Your task to perform on an android device: open app "LiveIn - Share Your Moment" Image 0: 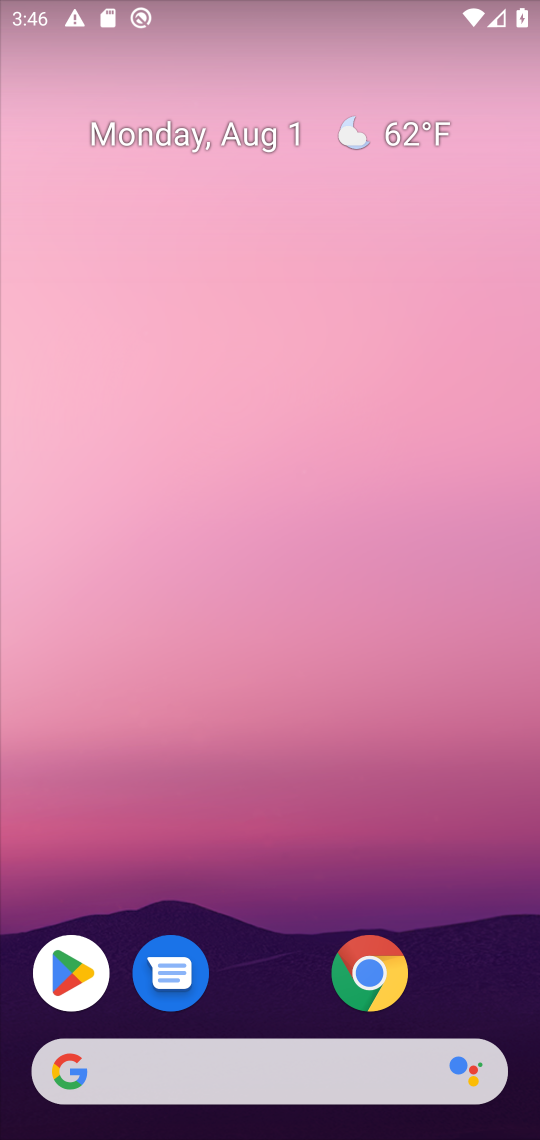
Step 0: drag from (394, 1022) to (211, 222)
Your task to perform on an android device: open app "LiveIn - Share Your Moment" Image 1: 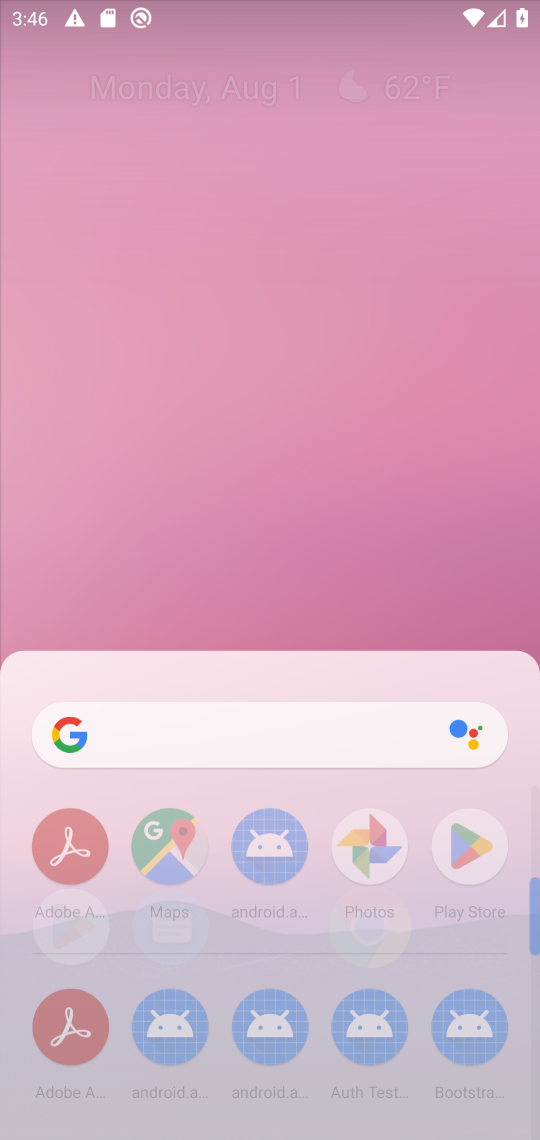
Step 1: click (147, 285)
Your task to perform on an android device: open app "LiveIn - Share Your Moment" Image 2: 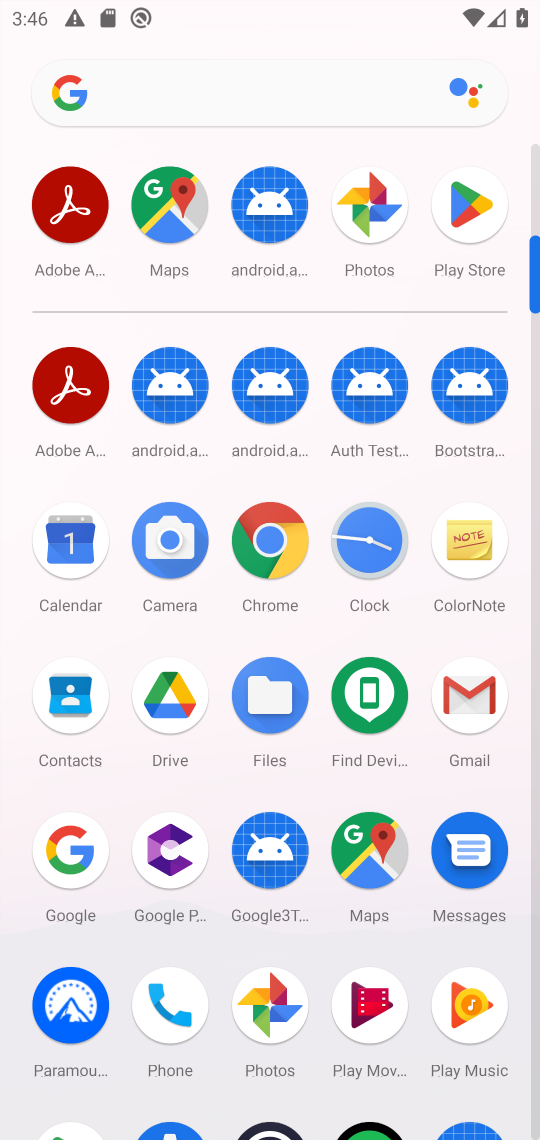
Step 2: click (470, 188)
Your task to perform on an android device: open app "LiveIn - Share Your Moment" Image 3: 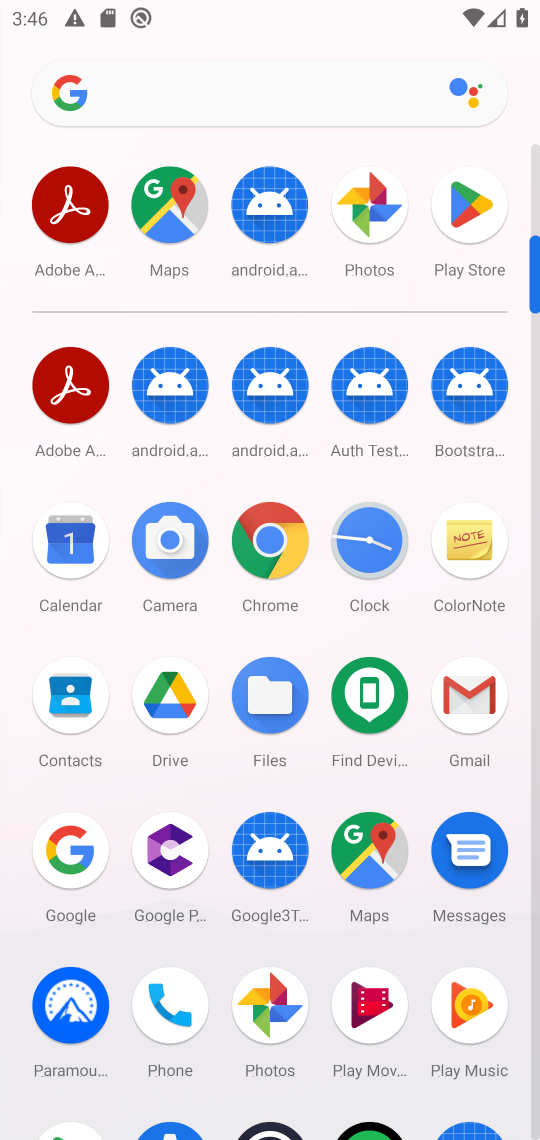
Step 3: click (472, 189)
Your task to perform on an android device: open app "LiveIn - Share Your Moment" Image 4: 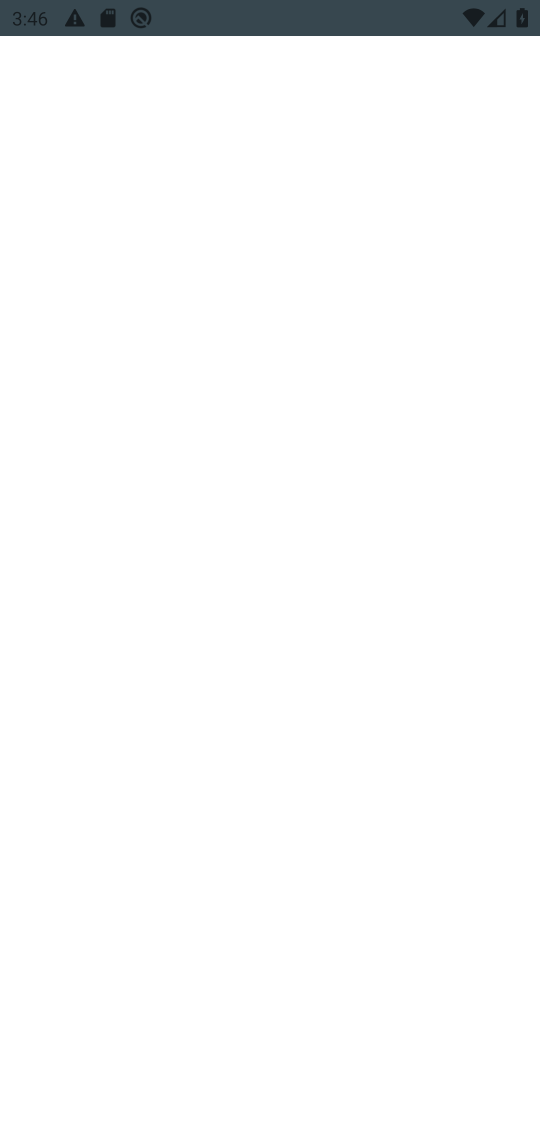
Step 4: click (472, 189)
Your task to perform on an android device: open app "LiveIn - Share Your Moment" Image 5: 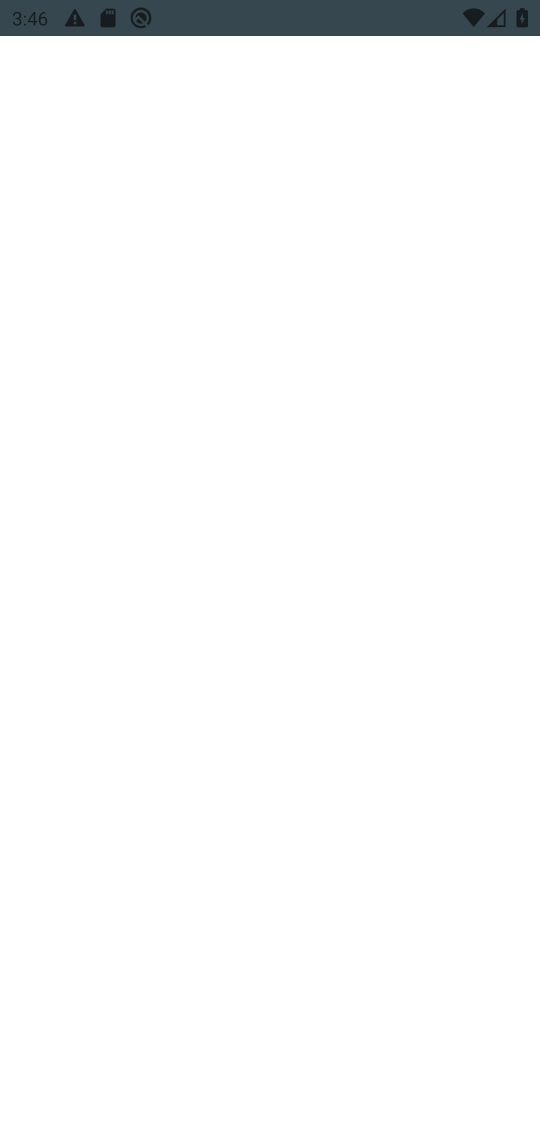
Step 5: click (472, 189)
Your task to perform on an android device: open app "LiveIn - Share Your Moment" Image 6: 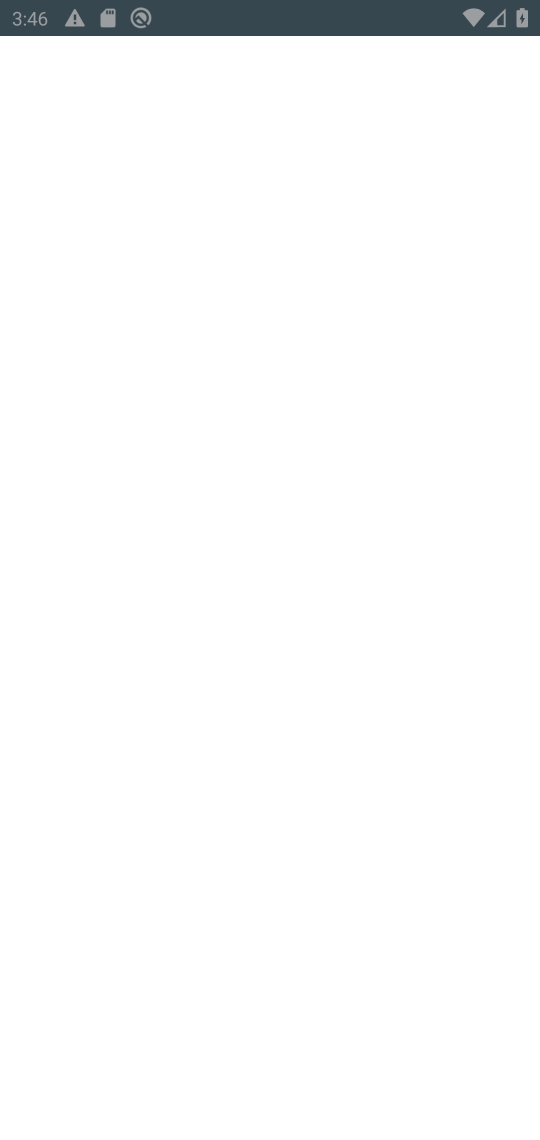
Step 6: click (473, 189)
Your task to perform on an android device: open app "LiveIn - Share Your Moment" Image 7: 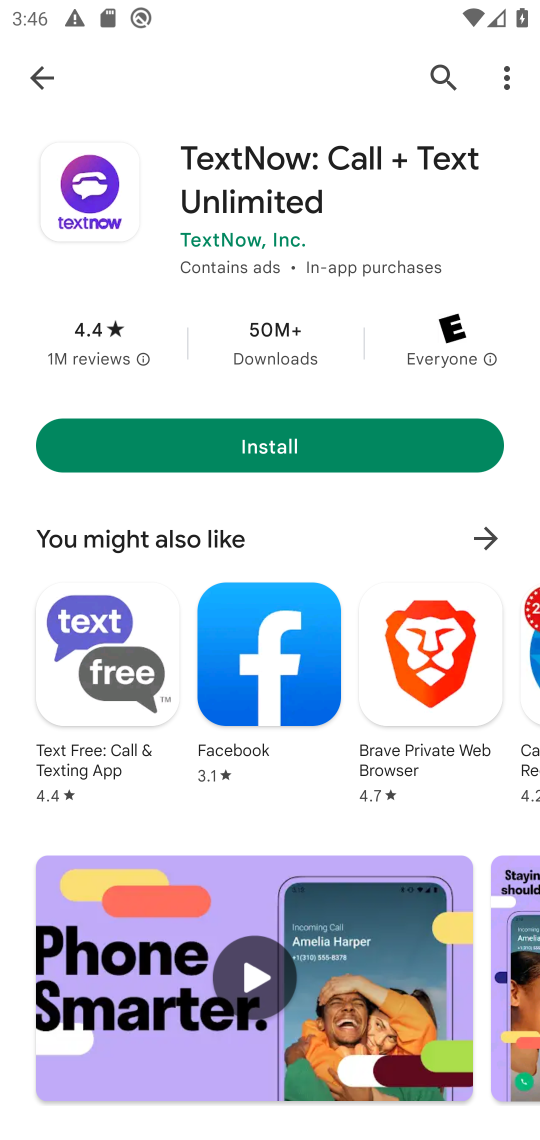
Step 7: click (30, 68)
Your task to perform on an android device: open app "LiveIn - Share Your Moment" Image 8: 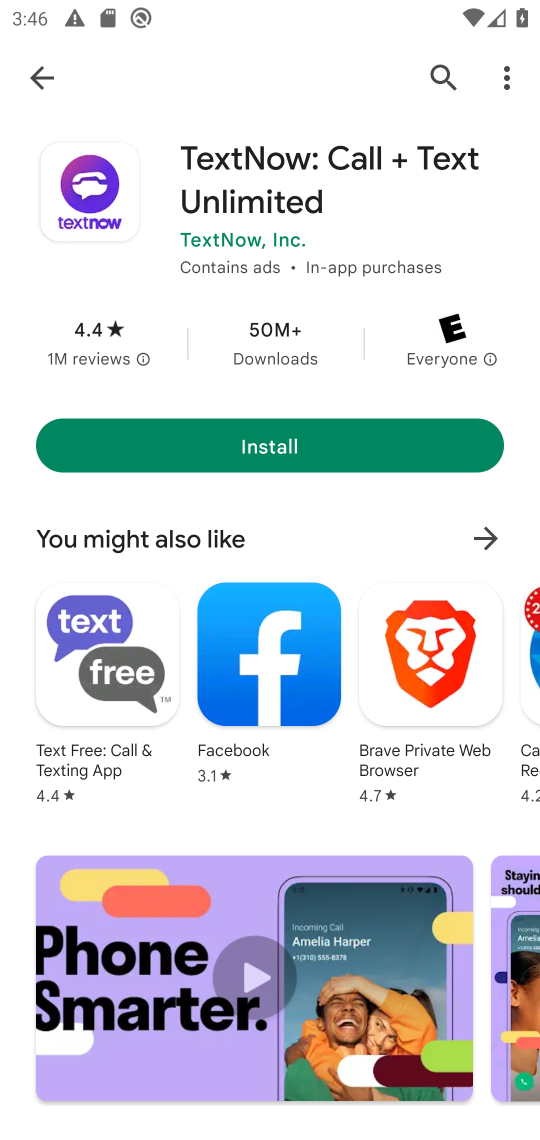
Step 8: click (24, 109)
Your task to perform on an android device: open app "LiveIn - Share Your Moment" Image 9: 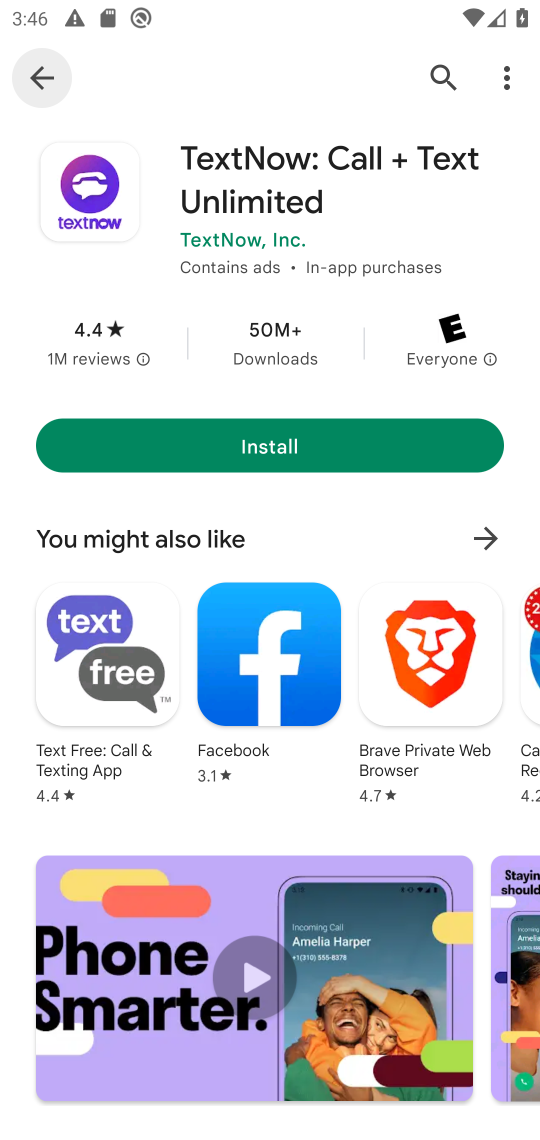
Step 9: click (26, 109)
Your task to perform on an android device: open app "LiveIn - Share Your Moment" Image 10: 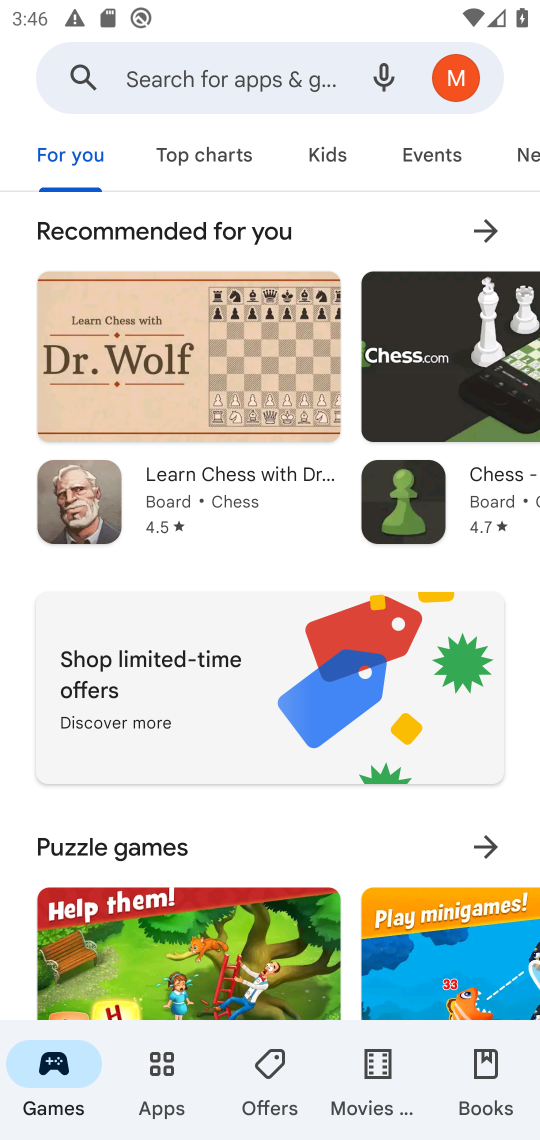
Step 10: click (151, 76)
Your task to perform on an android device: open app "LiveIn - Share Your Moment" Image 11: 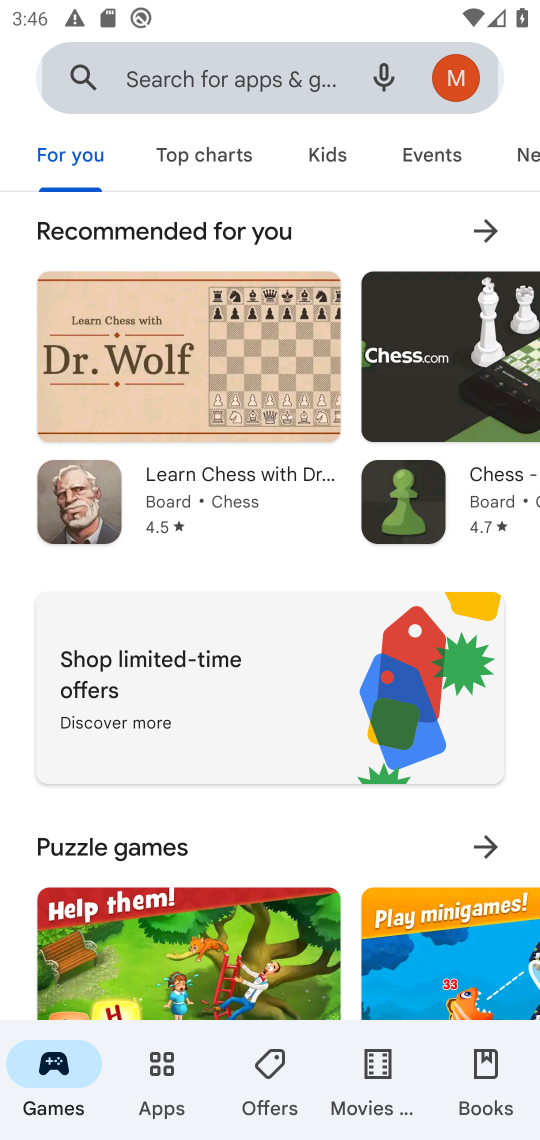
Step 11: click (151, 76)
Your task to perform on an android device: open app "LiveIn - Share Your Moment" Image 12: 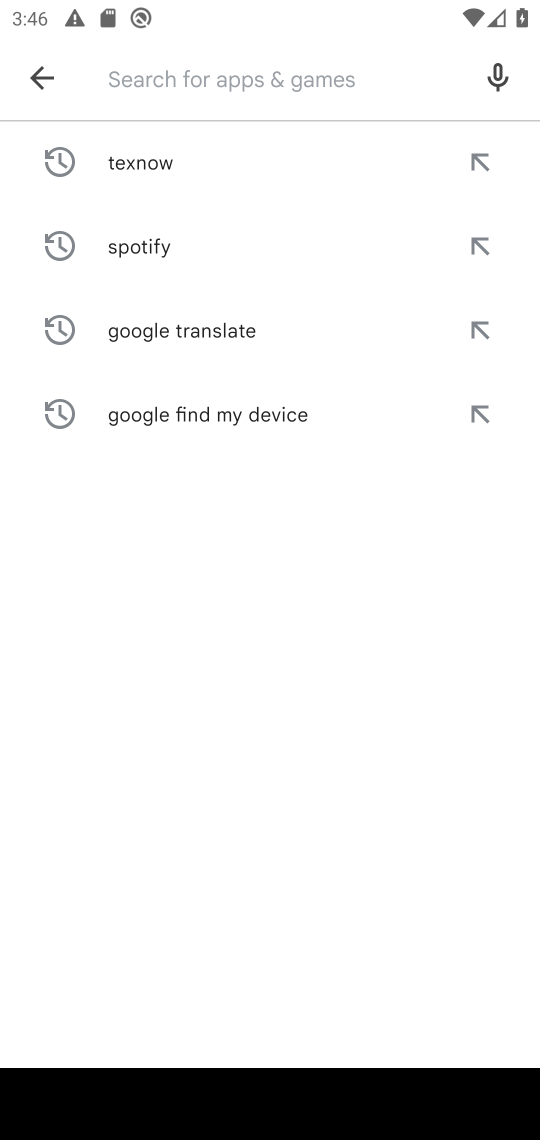
Step 12: type "livein"
Your task to perform on an android device: open app "LiveIn - Share Your Moment" Image 13: 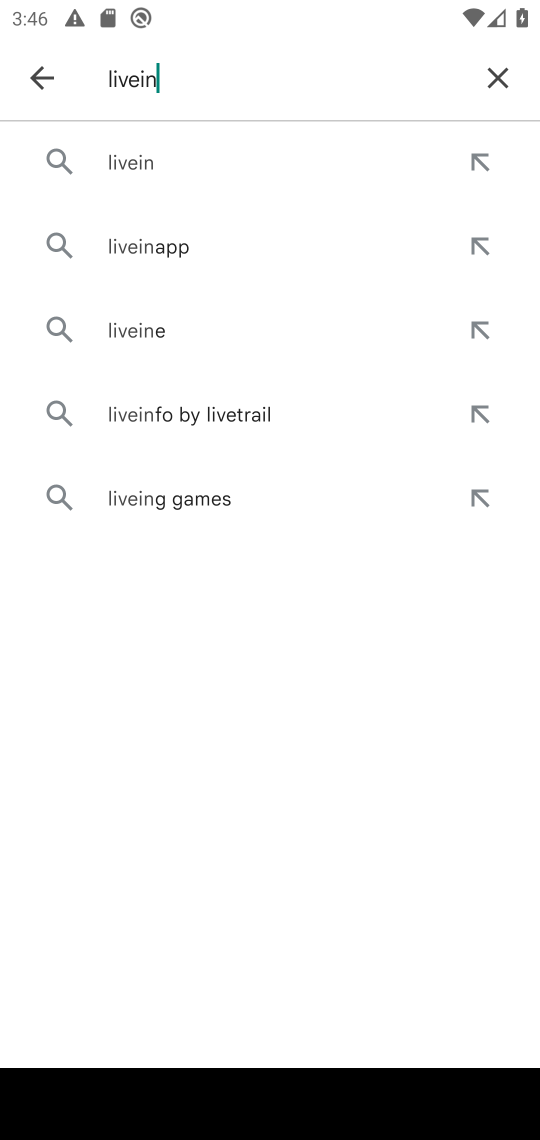
Step 13: click (487, 148)
Your task to perform on an android device: open app "LiveIn - Share Your Moment" Image 14: 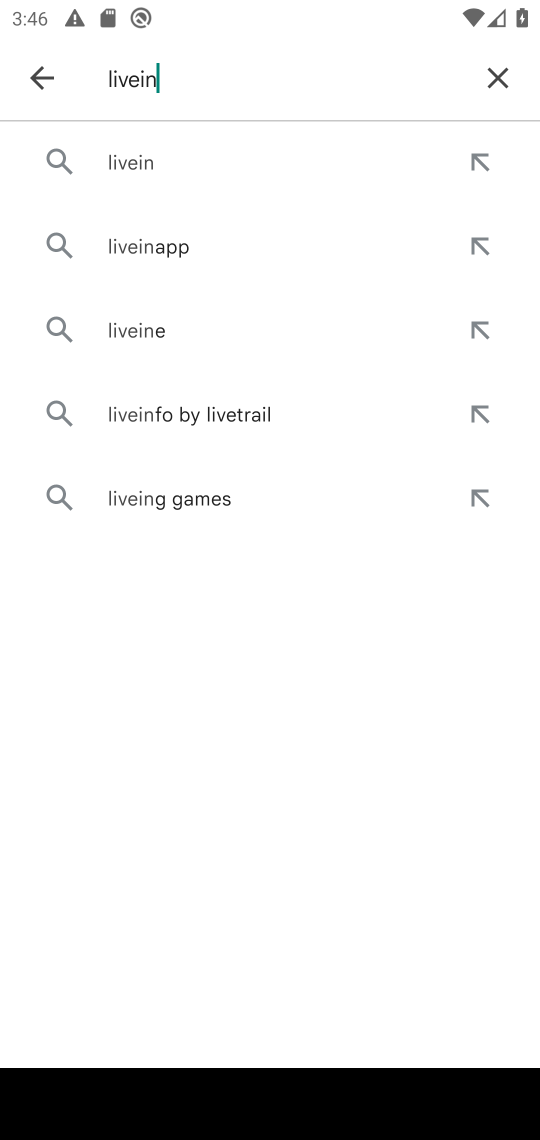
Step 14: click (466, 165)
Your task to perform on an android device: open app "LiveIn - Share Your Moment" Image 15: 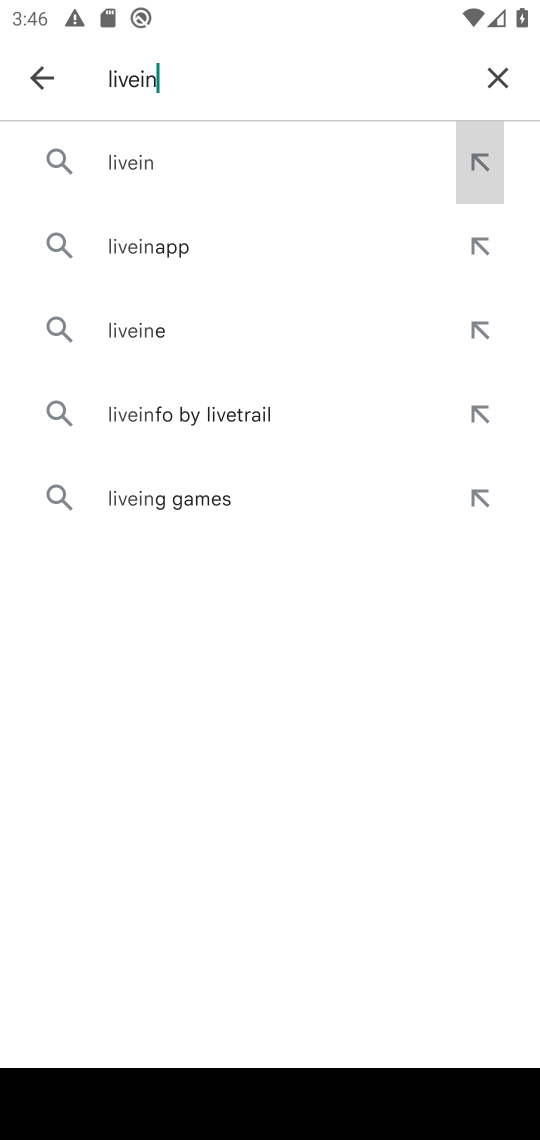
Step 15: click (478, 156)
Your task to perform on an android device: open app "LiveIn - Share Your Moment" Image 16: 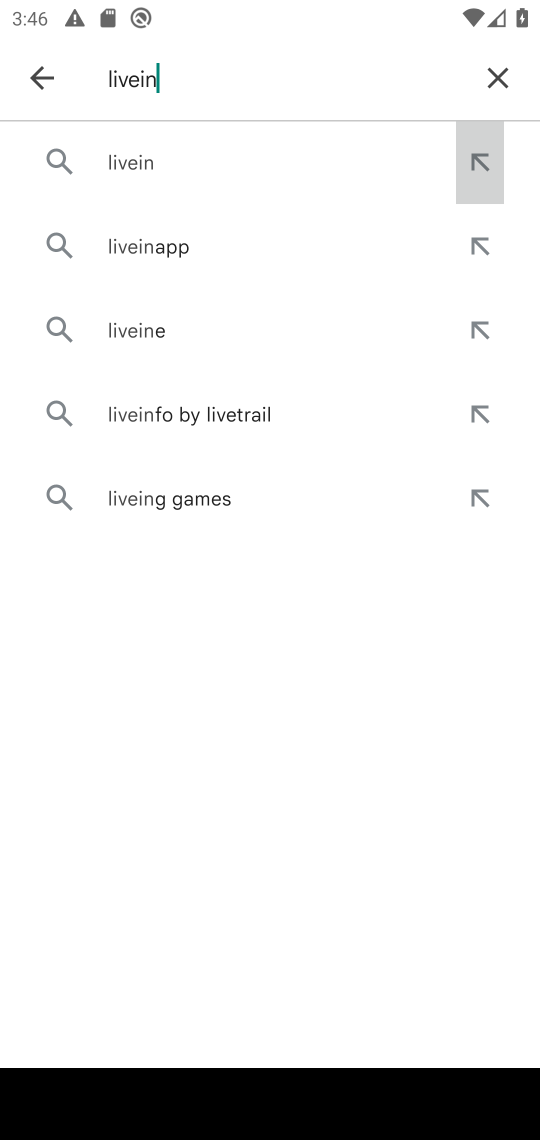
Step 16: click (142, 157)
Your task to perform on an android device: open app "LiveIn - Share Your Moment" Image 17: 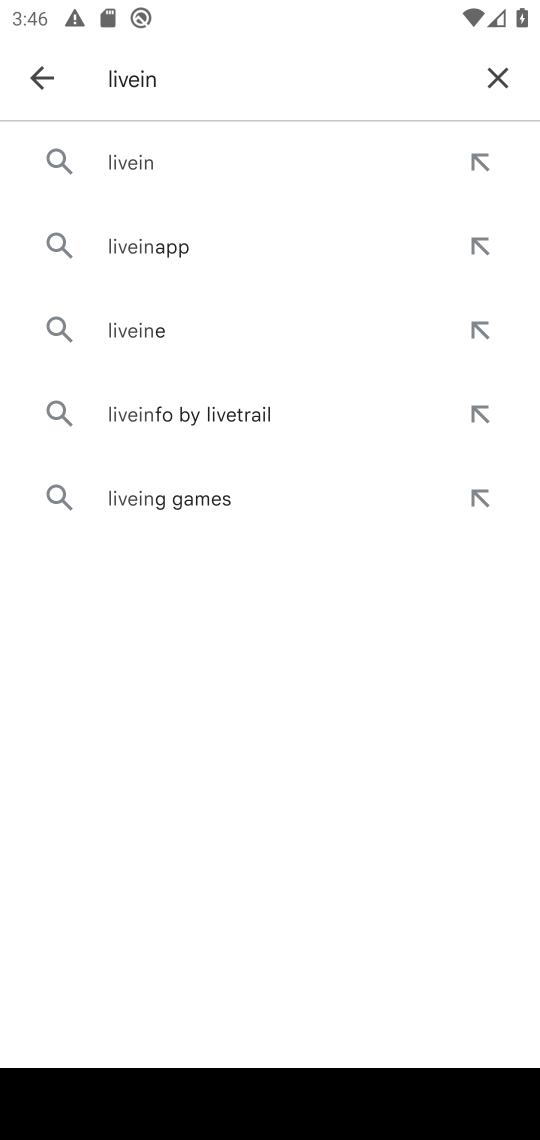
Step 17: click (142, 157)
Your task to perform on an android device: open app "LiveIn - Share Your Moment" Image 18: 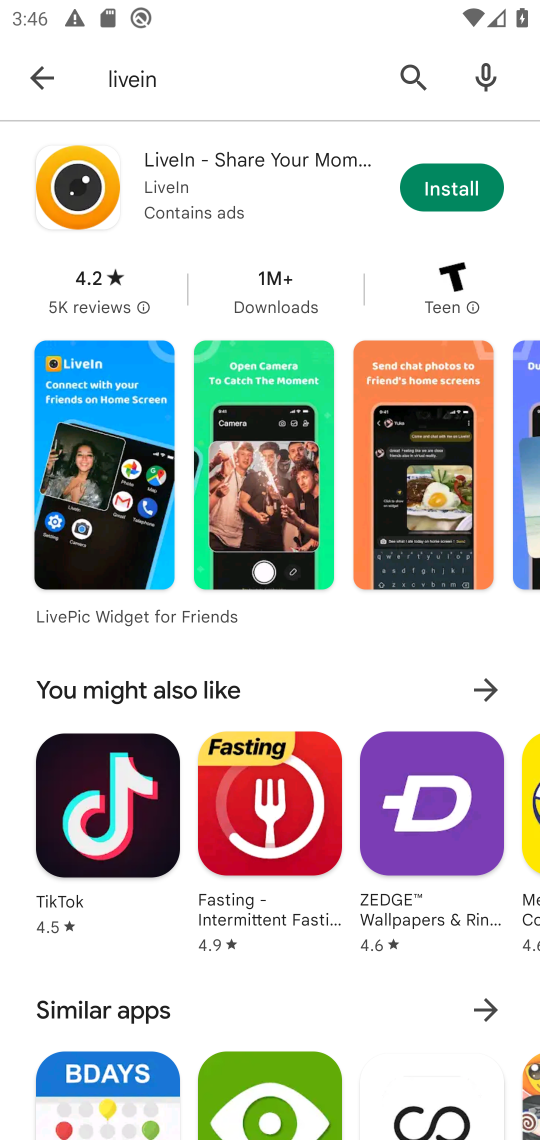
Step 18: click (426, 171)
Your task to perform on an android device: open app "LiveIn - Share Your Moment" Image 19: 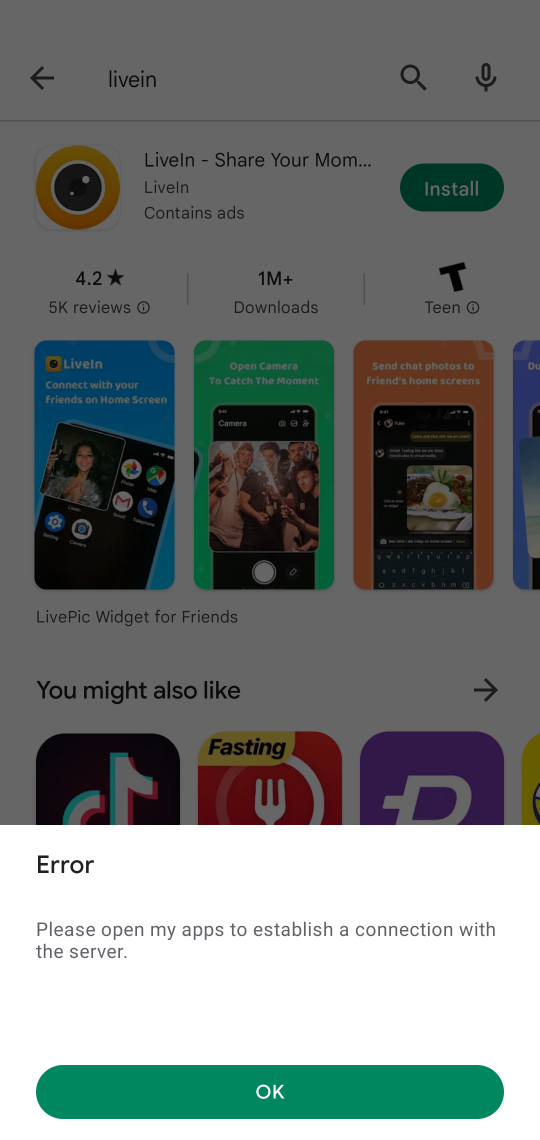
Step 19: click (262, 1107)
Your task to perform on an android device: open app "LiveIn - Share Your Moment" Image 20: 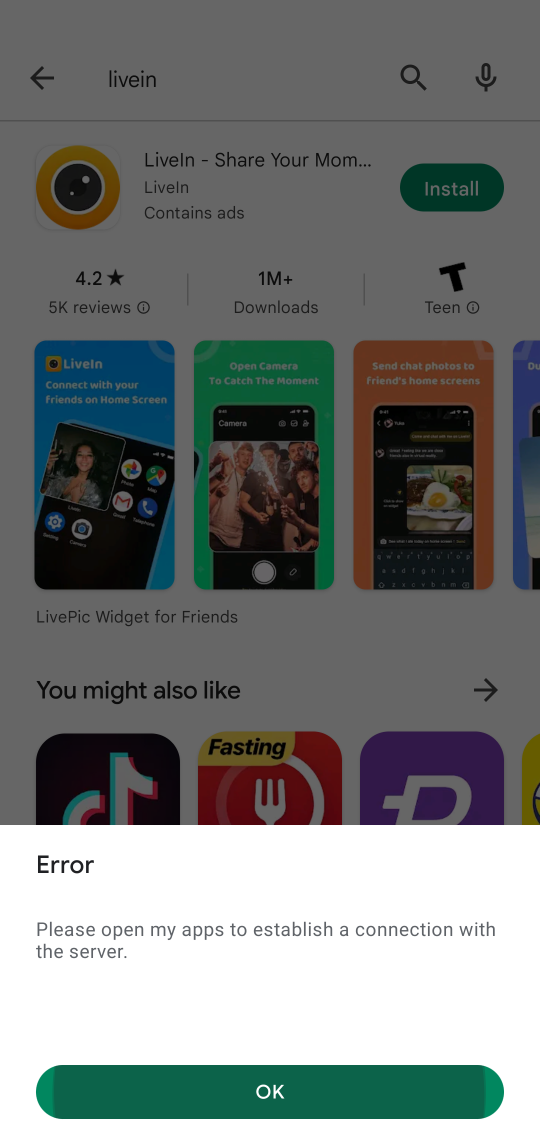
Step 20: click (265, 1072)
Your task to perform on an android device: open app "LiveIn - Share Your Moment" Image 21: 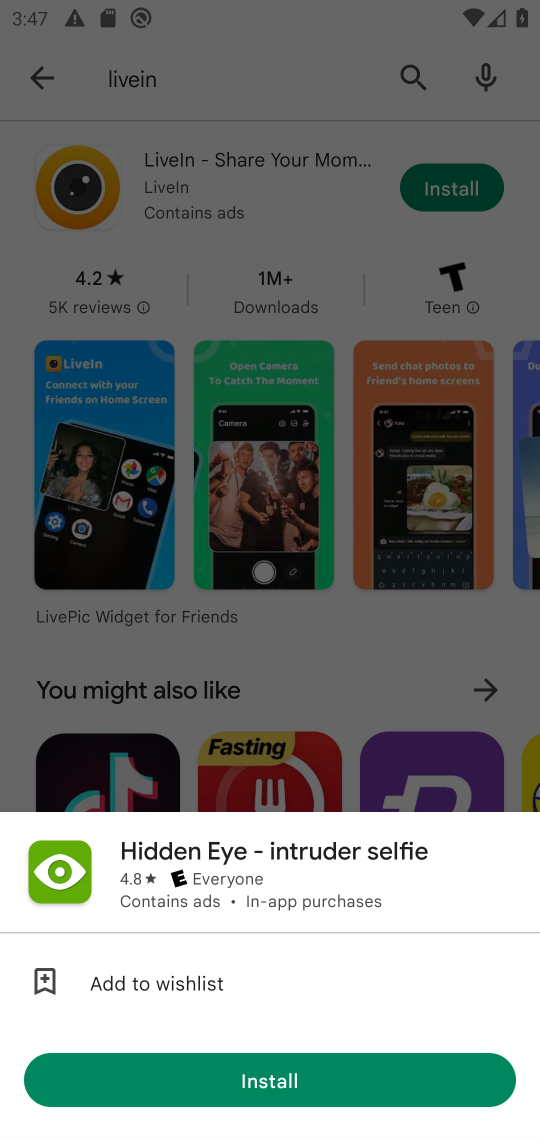
Step 21: click (324, 714)
Your task to perform on an android device: open app "LiveIn - Share Your Moment" Image 22: 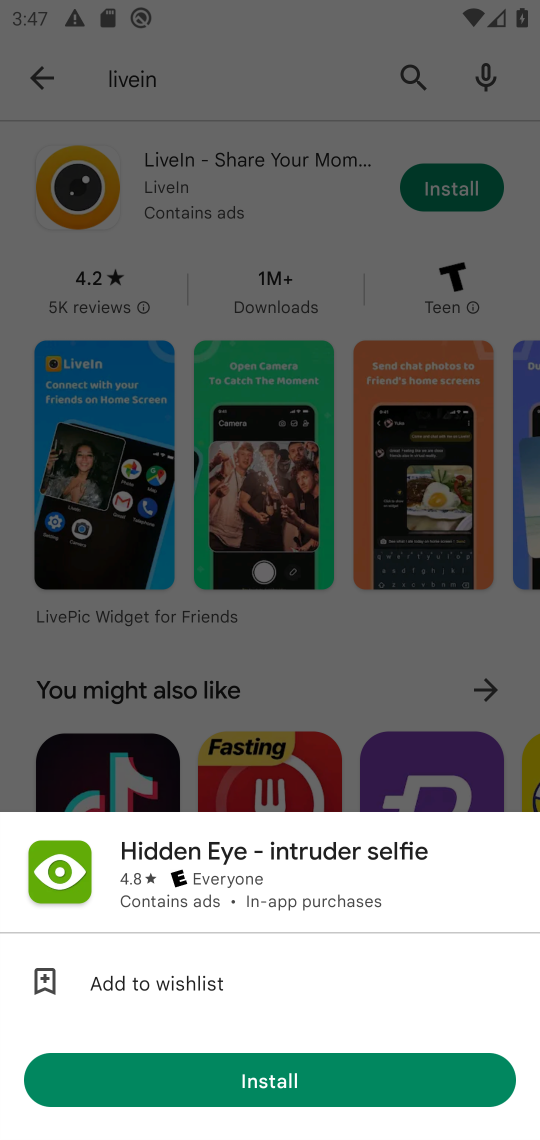
Step 22: click (343, 704)
Your task to perform on an android device: open app "LiveIn - Share Your Moment" Image 23: 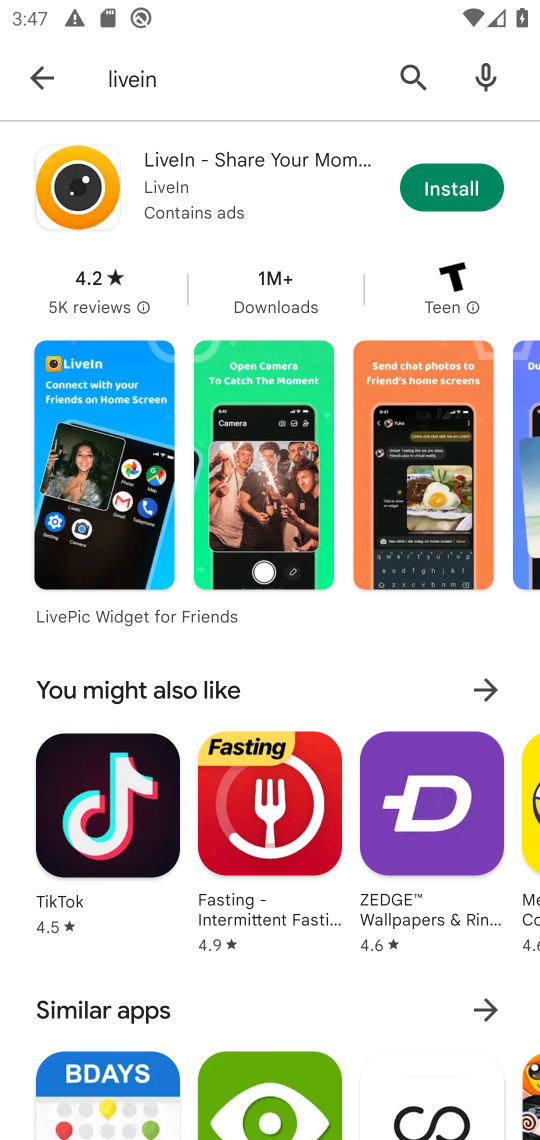
Step 23: click (427, 175)
Your task to perform on an android device: open app "LiveIn - Share Your Moment" Image 24: 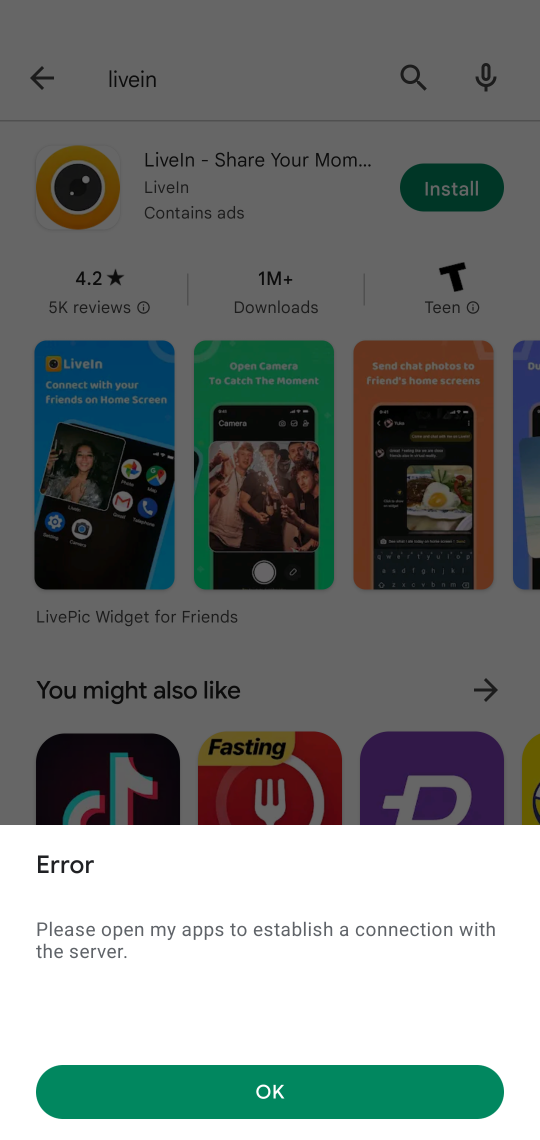
Step 24: click (273, 1093)
Your task to perform on an android device: open app "LiveIn - Share Your Moment" Image 25: 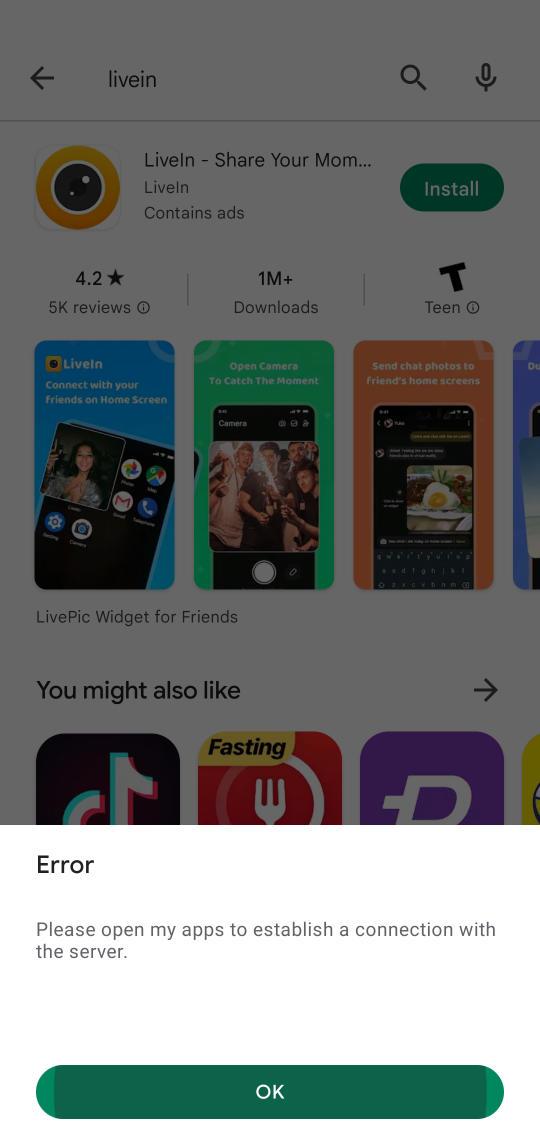
Step 25: click (273, 1093)
Your task to perform on an android device: open app "LiveIn - Share Your Moment" Image 26: 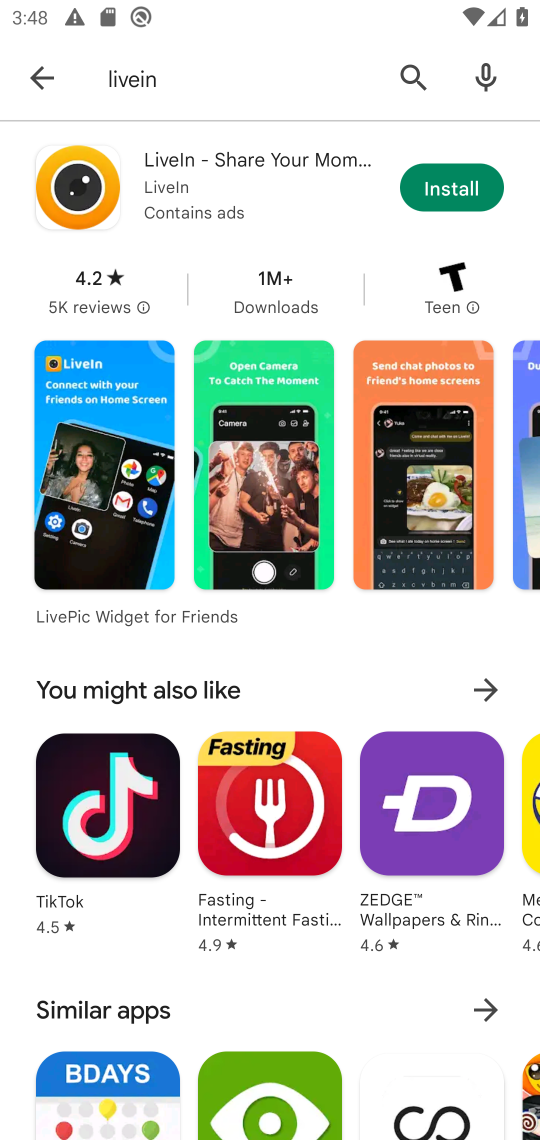
Step 26: click (282, 1092)
Your task to perform on an android device: open app "LiveIn - Share Your Moment" Image 27: 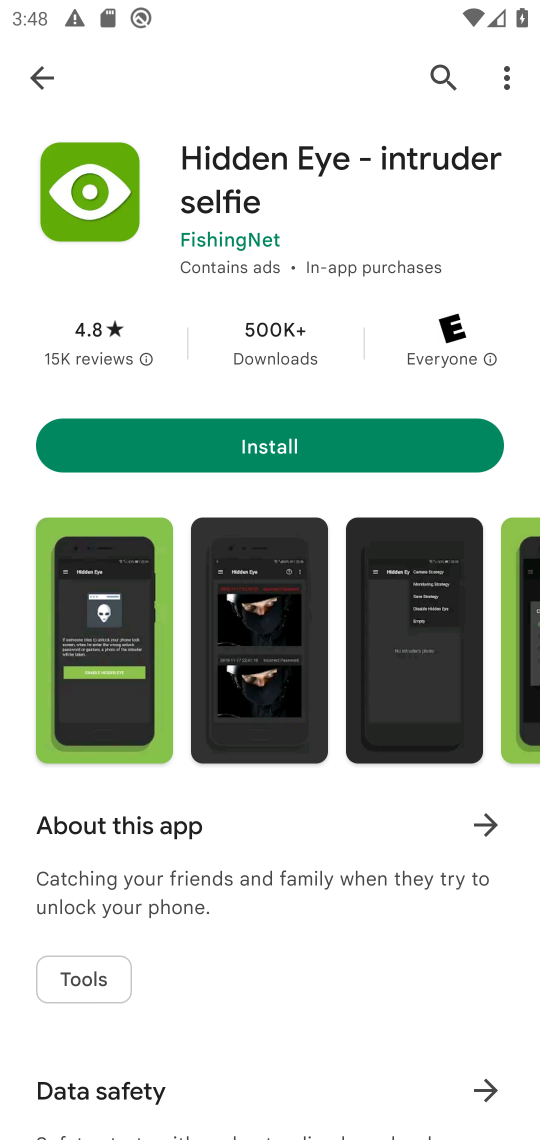
Step 27: click (39, 57)
Your task to perform on an android device: open app "LiveIn - Share Your Moment" Image 28: 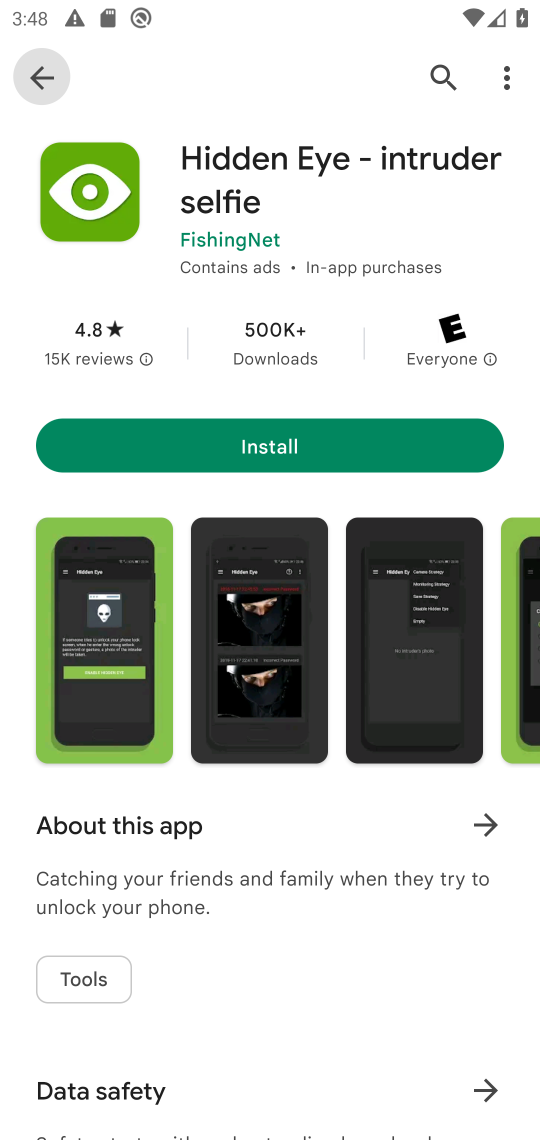
Step 28: click (39, 57)
Your task to perform on an android device: open app "LiveIn - Share Your Moment" Image 29: 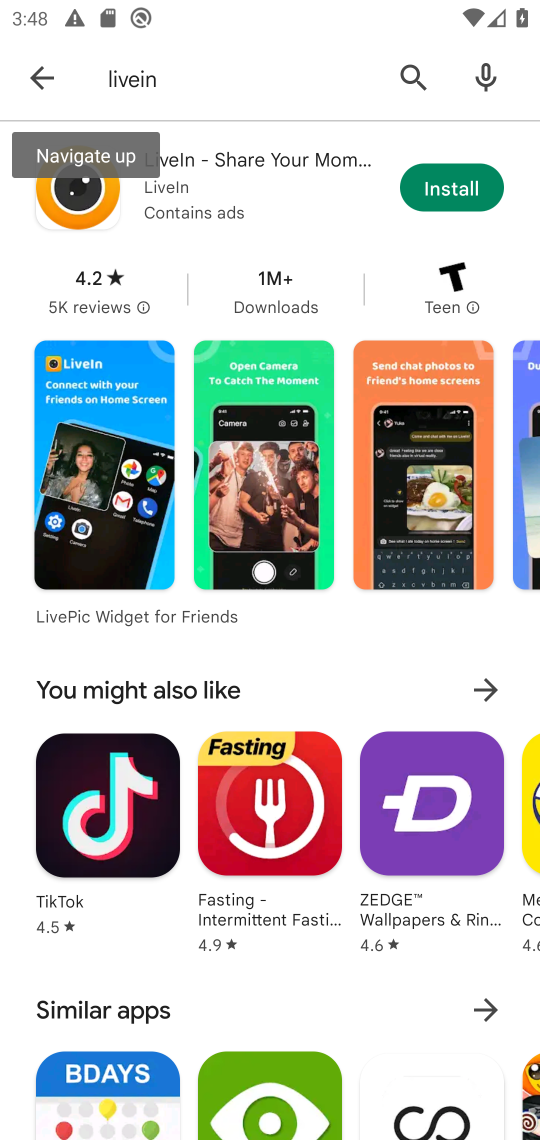
Step 29: click (460, 192)
Your task to perform on an android device: open app "LiveIn - Share Your Moment" Image 30: 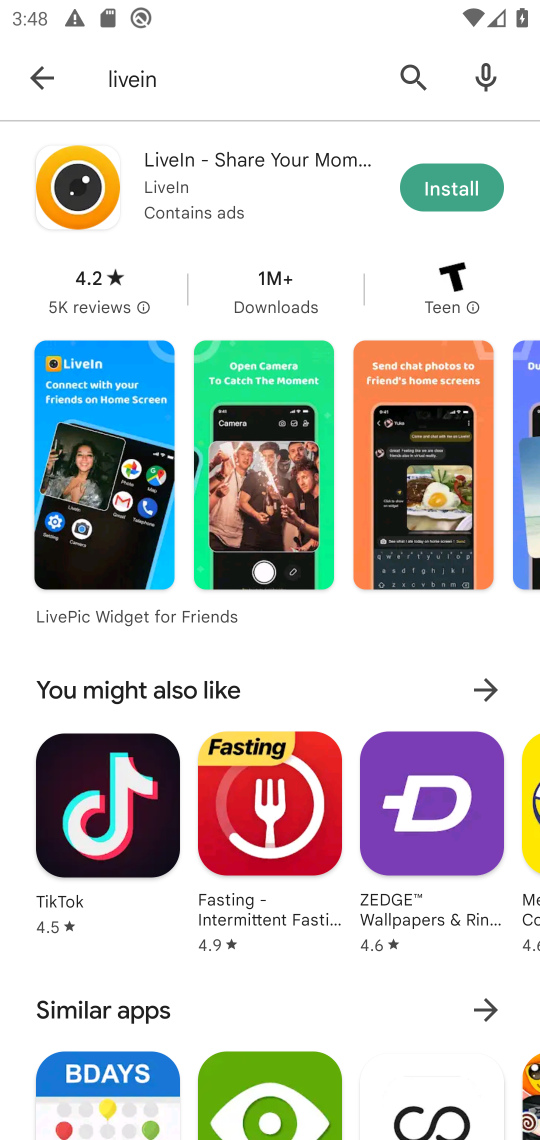
Step 30: click (463, 193)
Your task to perform on an android device: open app "LiveIn - Share Your Moment" Image 31: 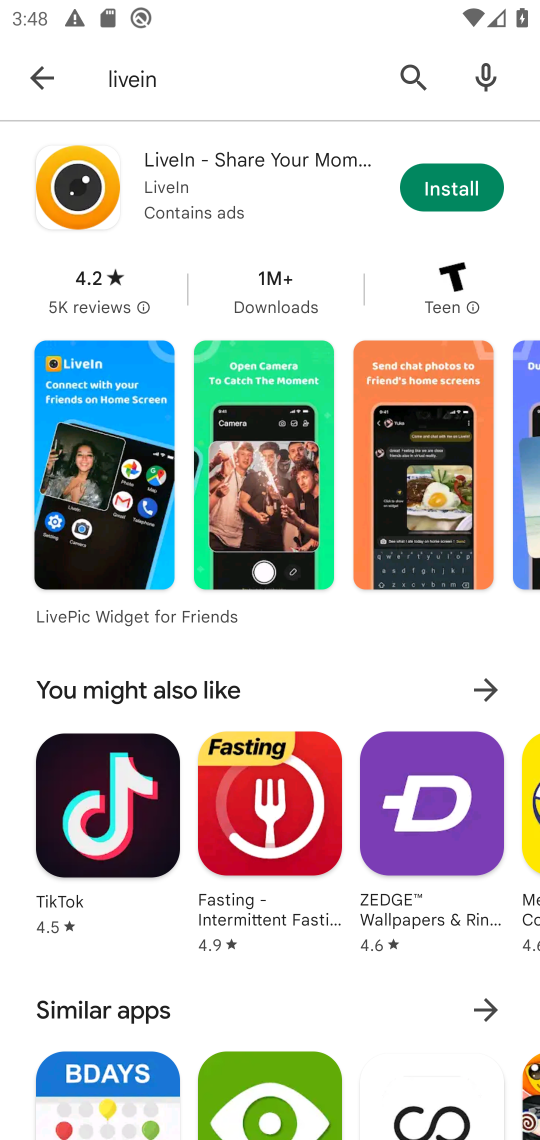
Step 31: click (456, 203)
Your task to perform on an android device: open app "LiveIn - Share Your Moment" Image 32: 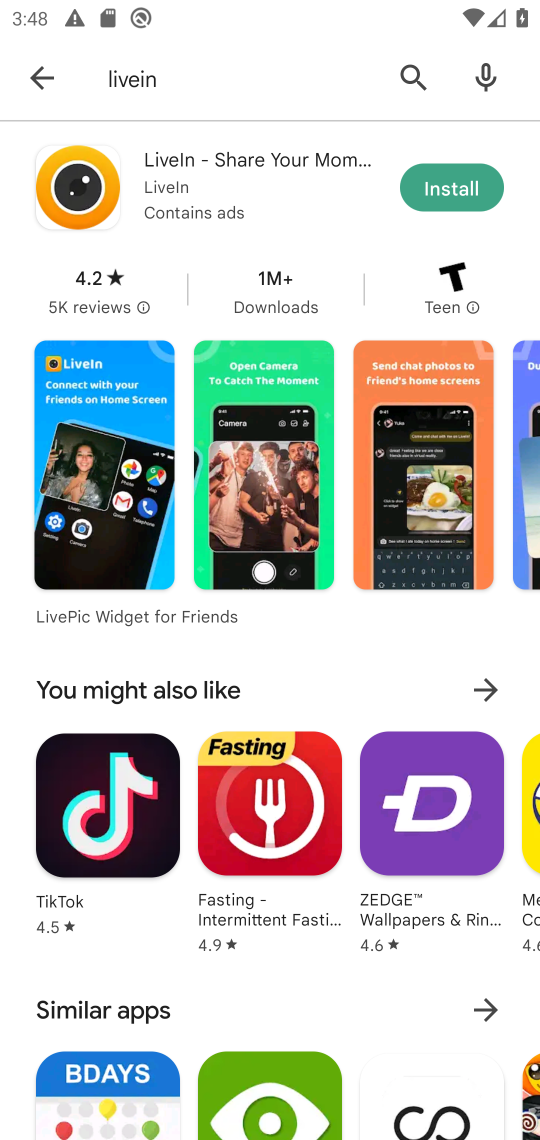
Step 32: click (452, 198)
Your task to perform on an android device: open app "LiveIn - Share Your Moment" Image 33: 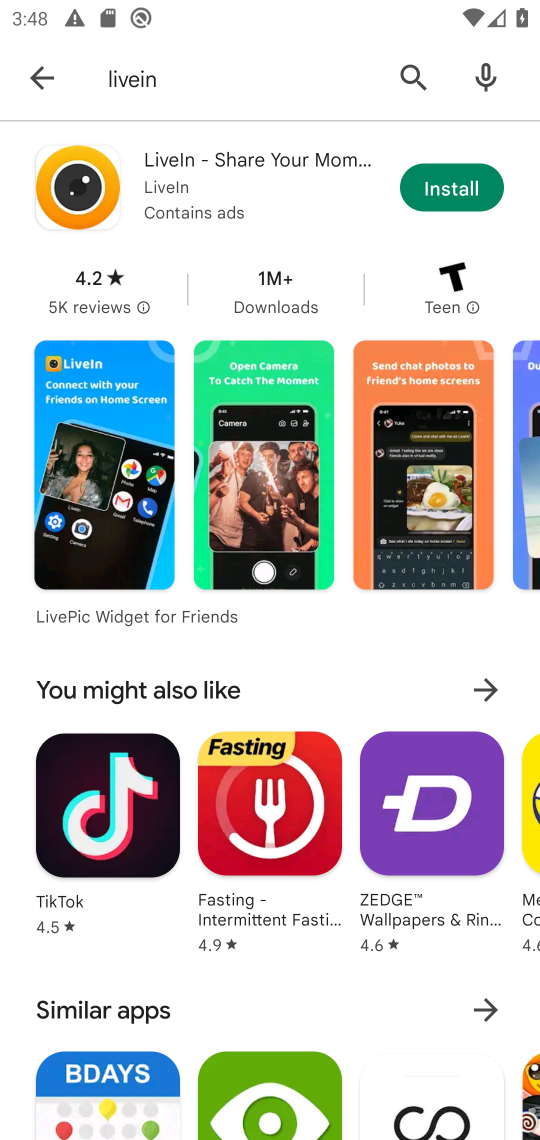
Step 33: click (449, 192)
Your task to perform on an android device: open app "LiveIn - Share Your Moment" Image 34: 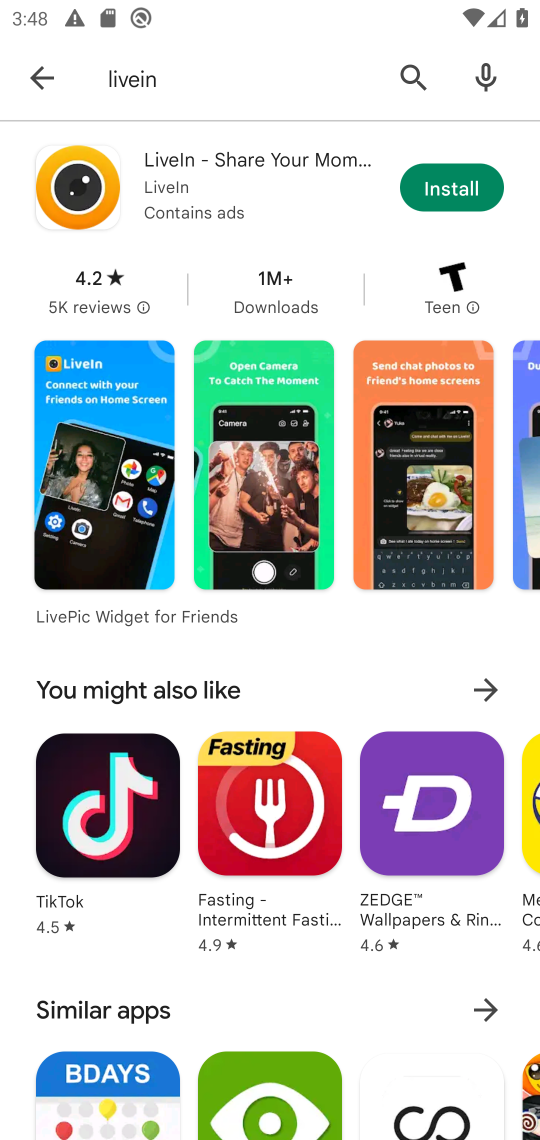
Step 34: click (449, 192)
Your task to perform on an android device: open app "LiveIn - Share Your Moment" Image 35: 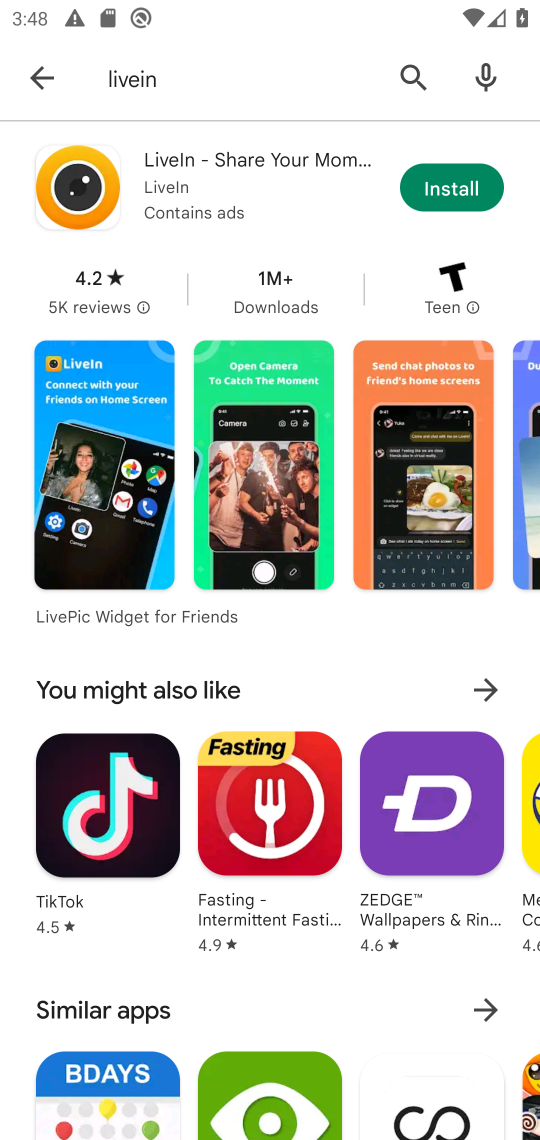
Step 35: click (452, 192)
Your task to perform on an android device: open app "LiveIn - Share Your Moment" Image 36: 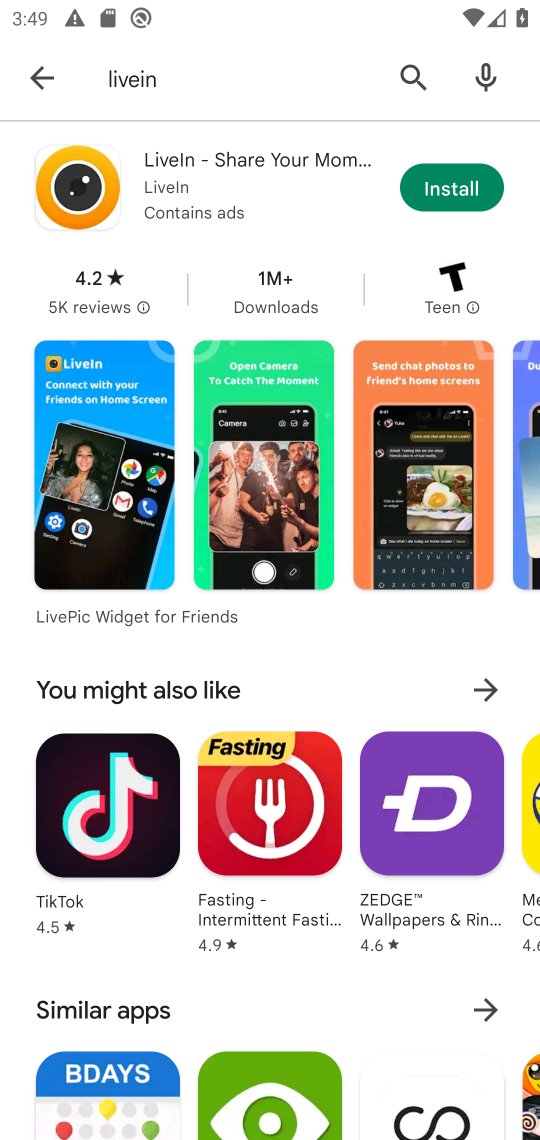
Step 36: click (449, 193)
Your task to perform on an android device: open app "LiveIn - Share Your Moment" Image 37: 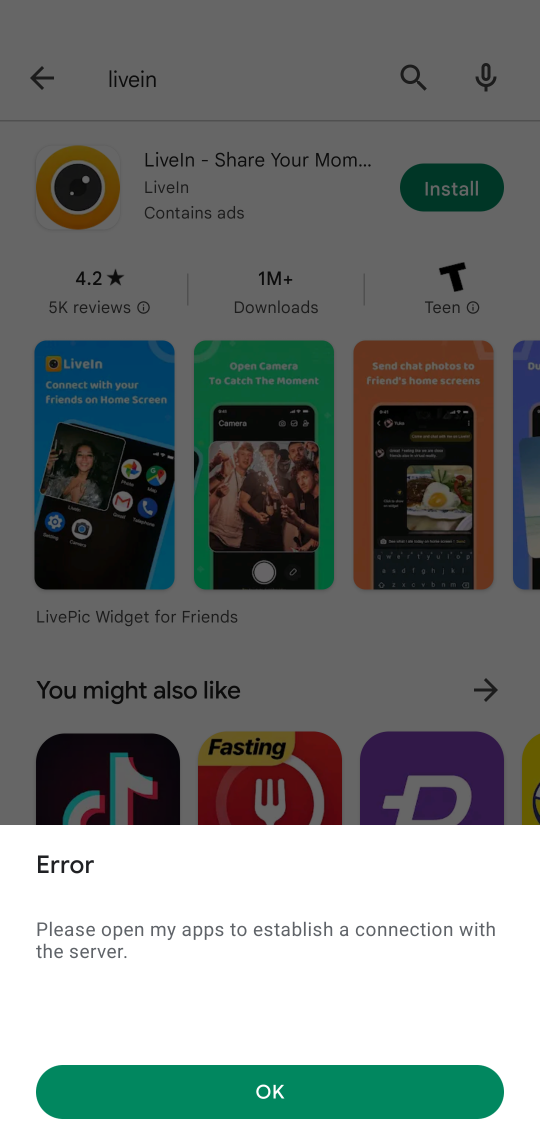
Step 37: click (265, 1093)
Your task to perform on an android device: open app "LiveIn - Share Your Moment" Image 38: 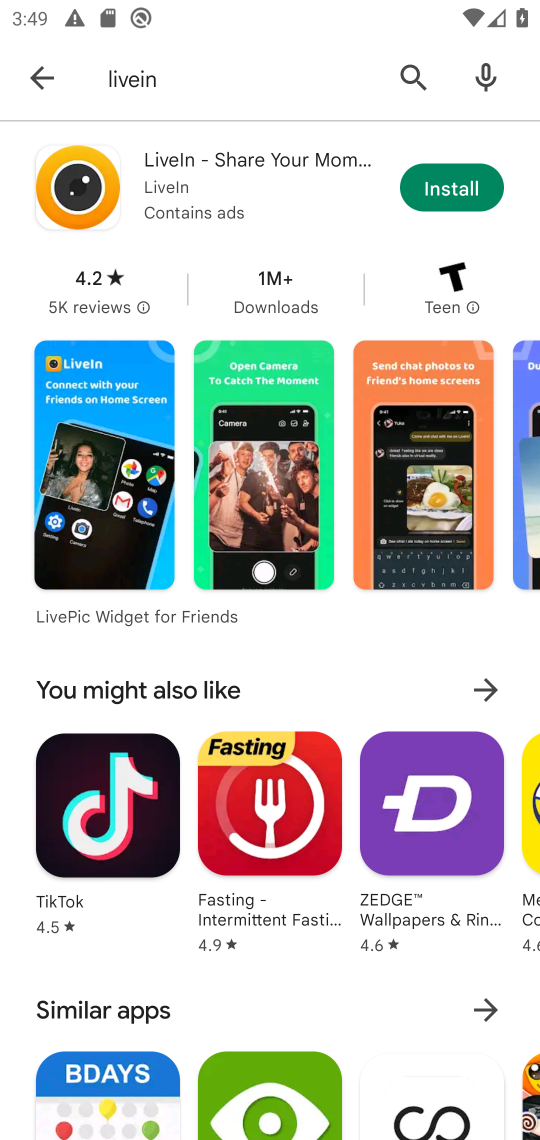
Step 38: task complete